Your task to perform on an android device: Open Google Image 0: 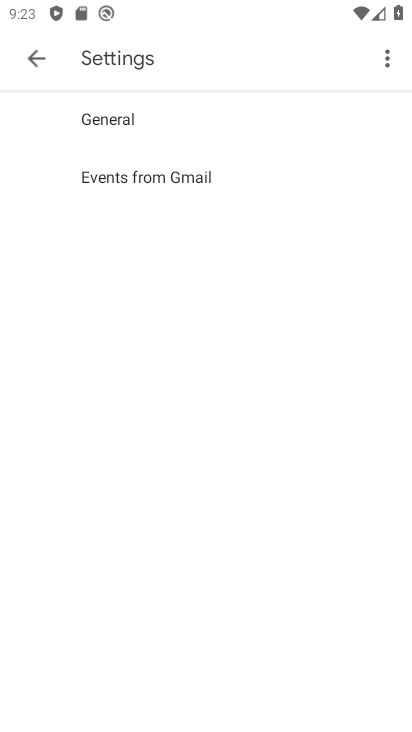
Step 0: press back button
Your task to perform on an android device: Open Google Image 1: 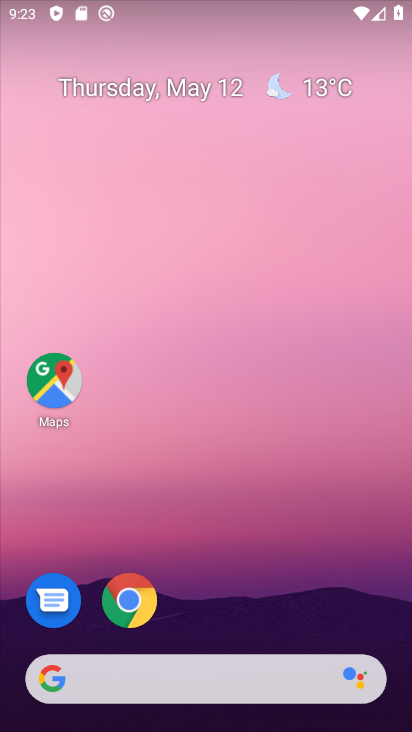
Step 1: drag from (317, 164) to (319, 25)
Your task to perform on an android device: Open Google Image 2: 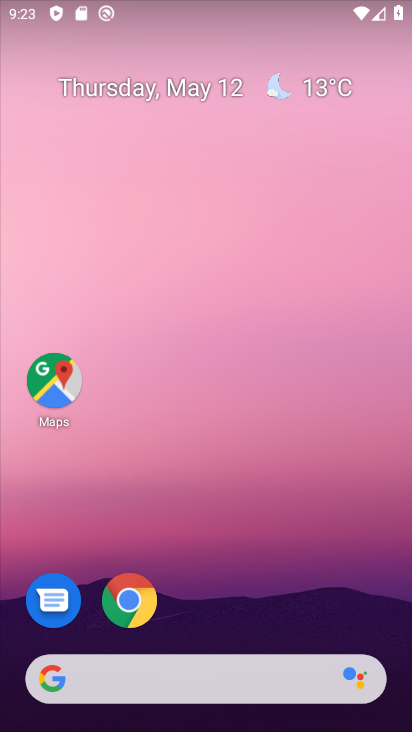
Step 2: drag from (220, 502) to (306, 29)
Your task to perform on an android device: Open Google Image 3: 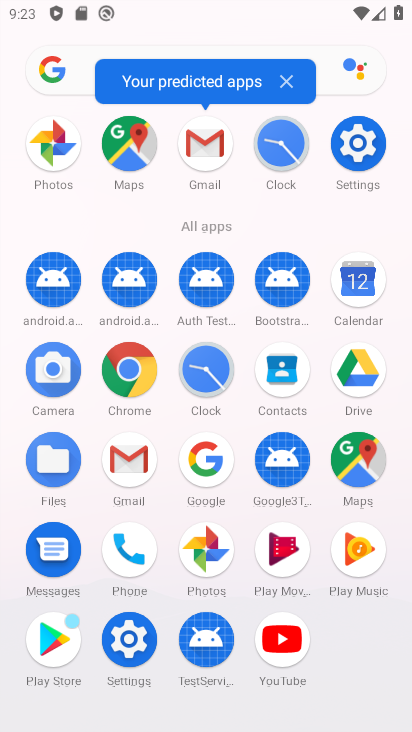
Step 3: click (200, 457)
Your task to perform on an android device: Open Google Image 4: 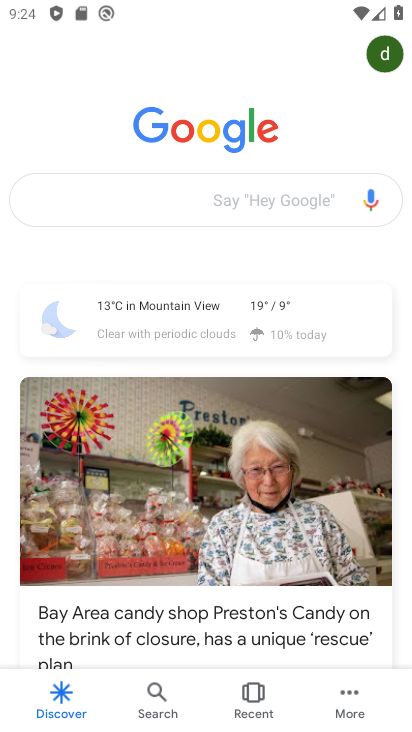
Step 4: task complete